Your task to perform on an android device: Open notification settings Image 0: 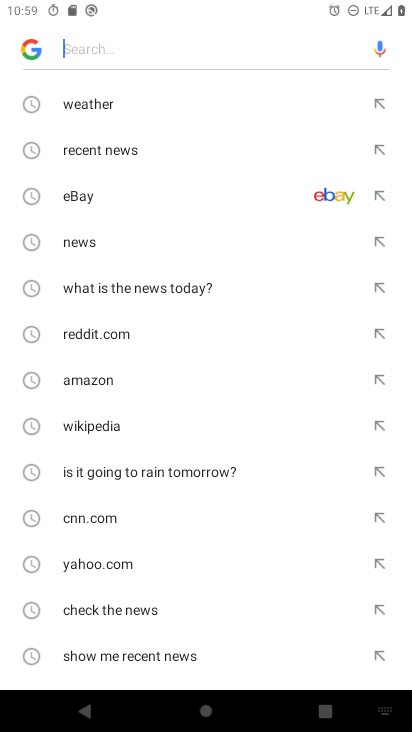
Step 0: press back button
Your task to perform on an android device: Open notification settings Image 1: 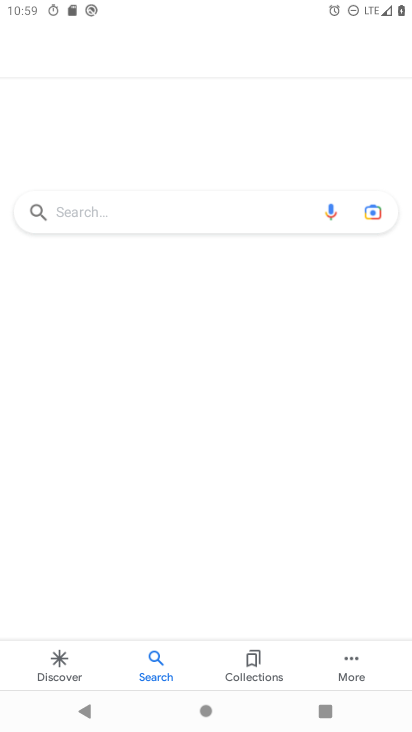
Step 1: press back button
Your task to perform on an android device: Open notification settings Image 2: 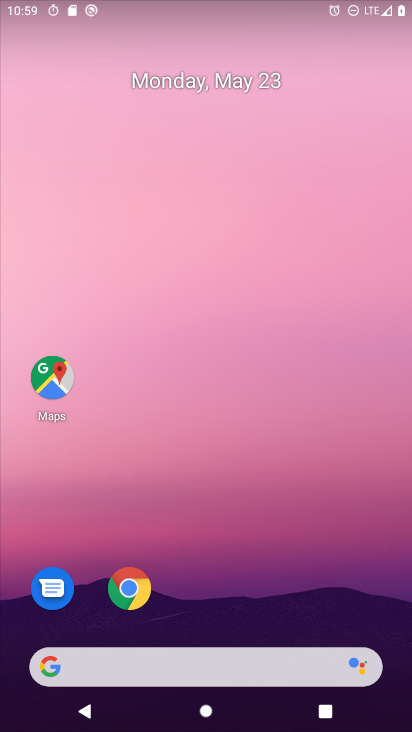
Step 2: drag from (382, 594) to (359, 254)
Your task to perform on an android device: Open notification settings Image 3: 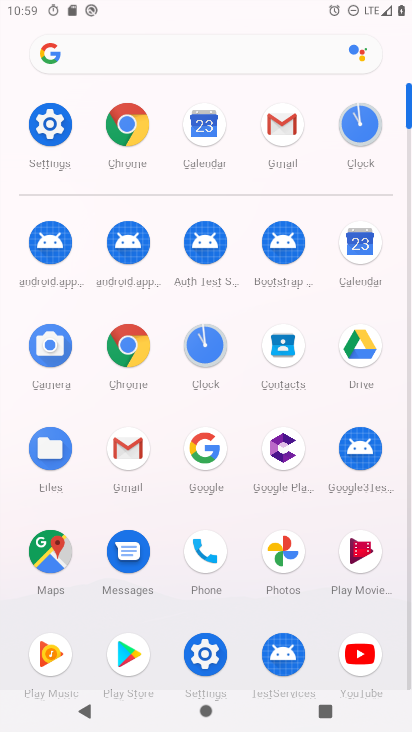
Step 3: click (34, 122)
Your task to perform on an android device: Open notification settings Image 4: 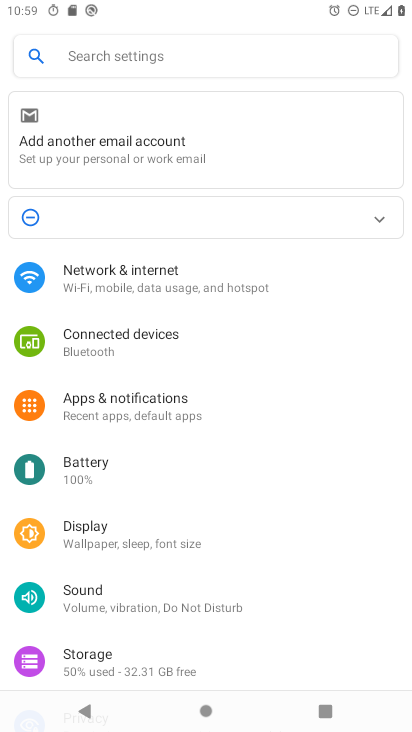
Step 4: click (152, 410)
Your task to perform on an android device: Open notification settings Image 5: 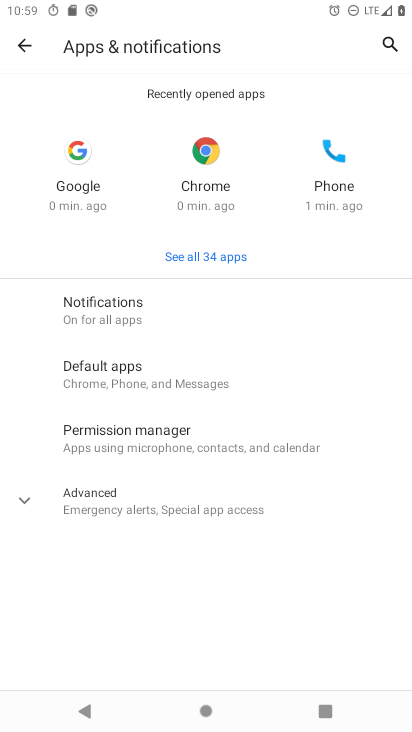
Step 5: click (95, 304)
Your task to perform on an android device: Open notification settings Image 6: 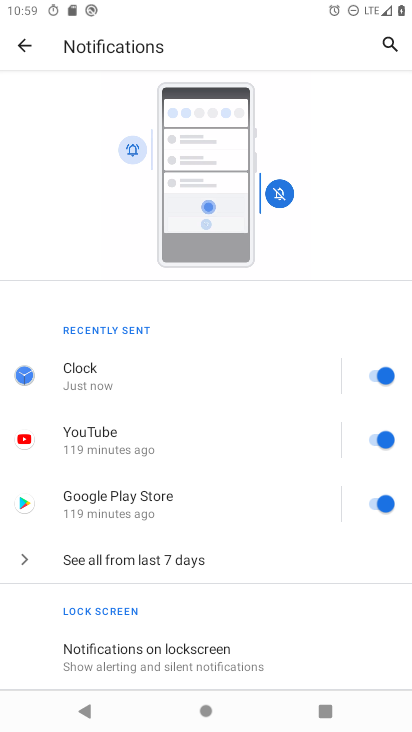
Step 6: drag from (288, 660) to (264, 351)
Your task to perform on an android device: Open notification settings Image 7: 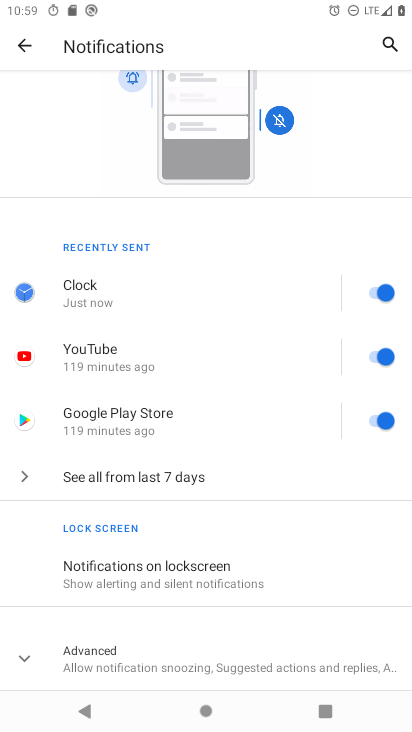
Step 7: click (15, 655)
Your task to perform on an android device: Open notification settings Image 8: 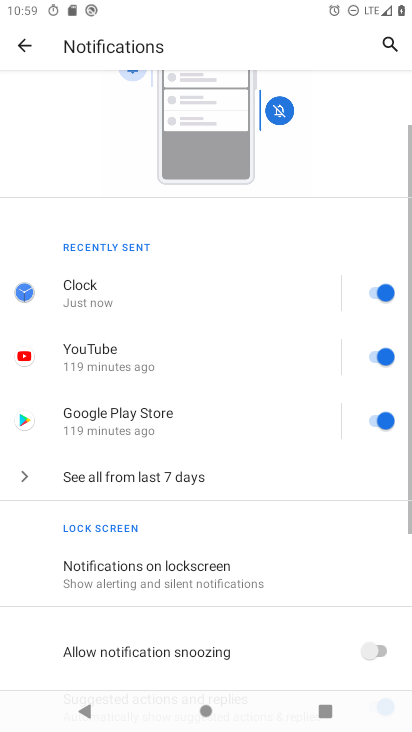
Step 8: task complete